Your task to perform on an android device: Open the calendar app, open the side menu, and click the "Day" option Image 0: 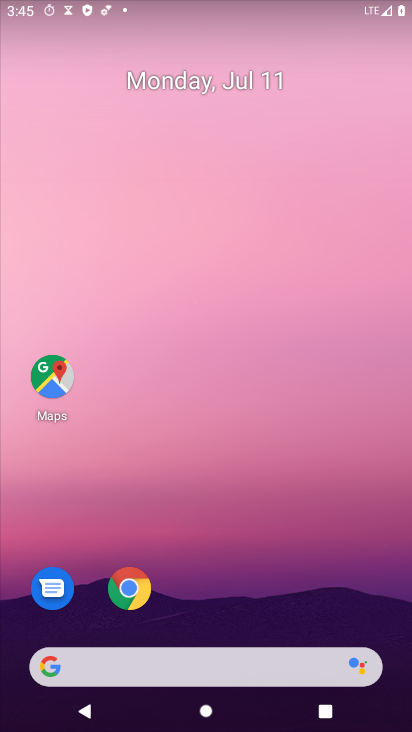
Step 0: drag from (227, 579) to (204, 9)
Your task to perform on an android device: Open the calendar app, open the side menu, and click the "Day" option Image 1: 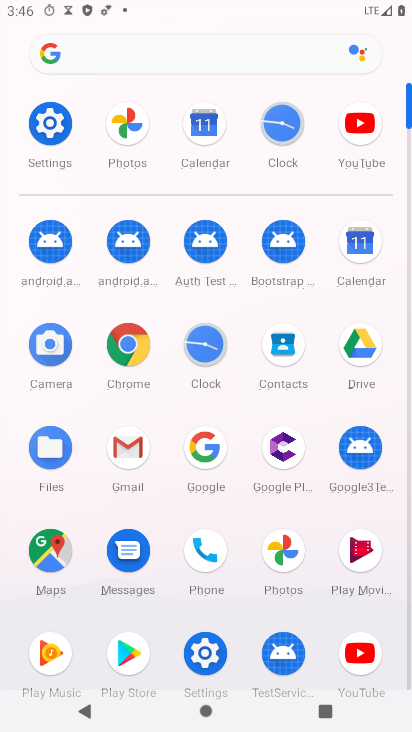
Step 1: click (359, 245)
Your task to perform on an android device: Open the calendar app, open the side menu, and click the "Day" option Image 2: 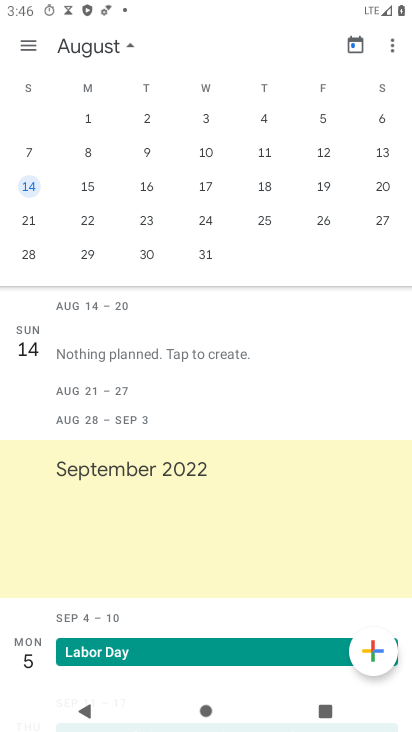
Step 2: click (21, 54)
Your task to perform on an android device: Open the calendar app, open the side menu, and click the "Day" option Image 3: 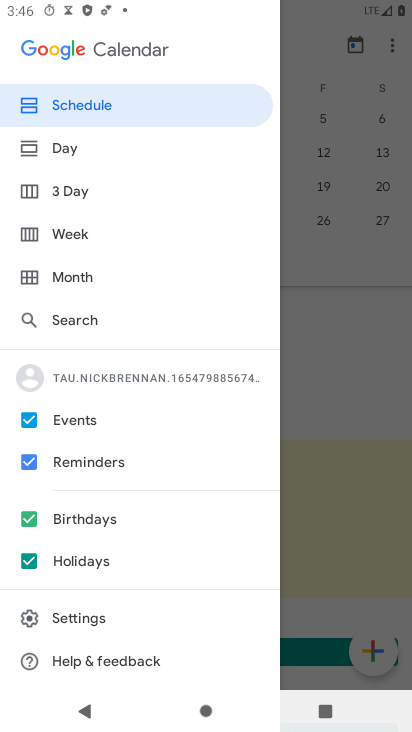
Step 3: click (49, 148)
Your task to perform on an android device: Open the calendar app, open the side menu, and click the "Day" option Image 4: 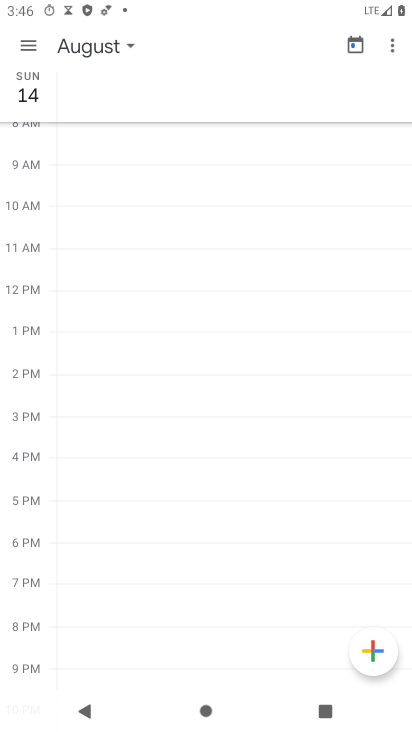
Step 4: task complete